Your task to perform on an android device: Do I have any events this weekend? Image 0: 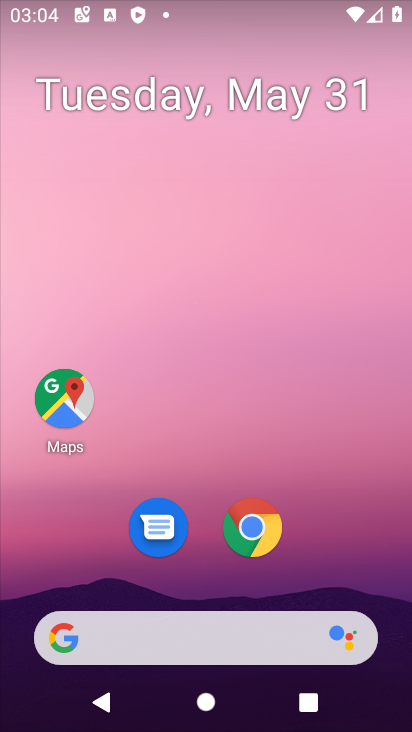
Step 0: drag from (401, 644) to (306, 174)
Your task to perform on an android device: Do I have any events this weekend? Image 1: 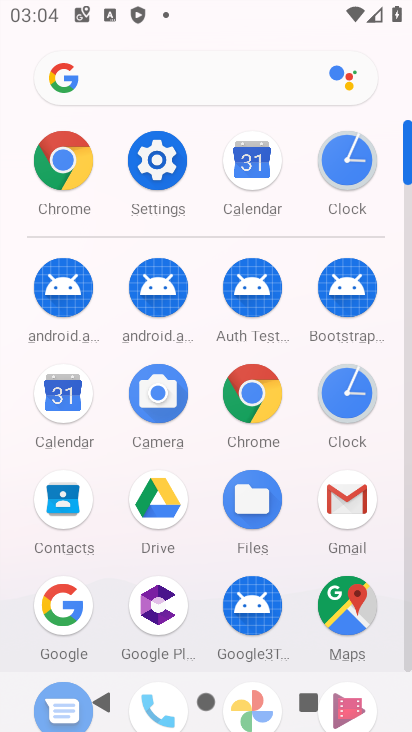
Step 1: click (407, 649)
Your task to perform on an android device: Do I have any events this weekend? Image 2: 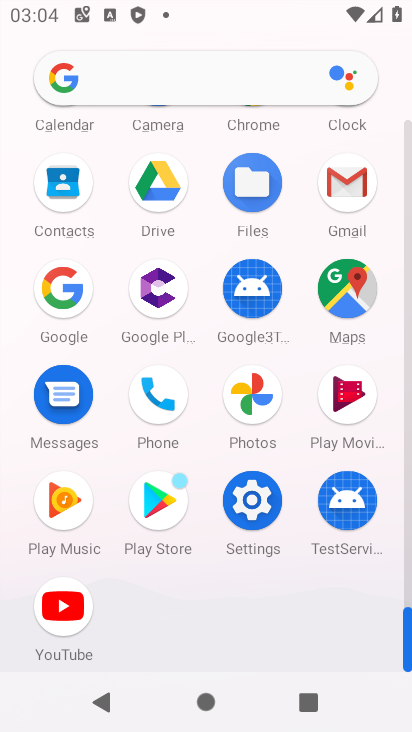
Step 2: click (408, 161)
Your task to perform on an android device: Do I have any events this weekend? Image 3: 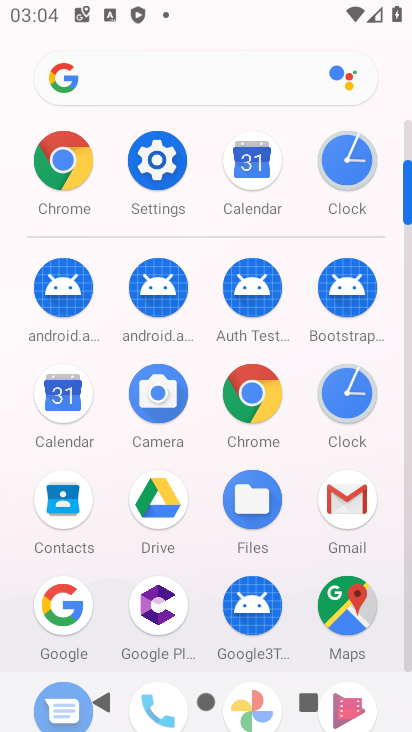
Step 3: click (64, 393)
Your task to perform on an android device: Do I have any events this weekend? Image 4: 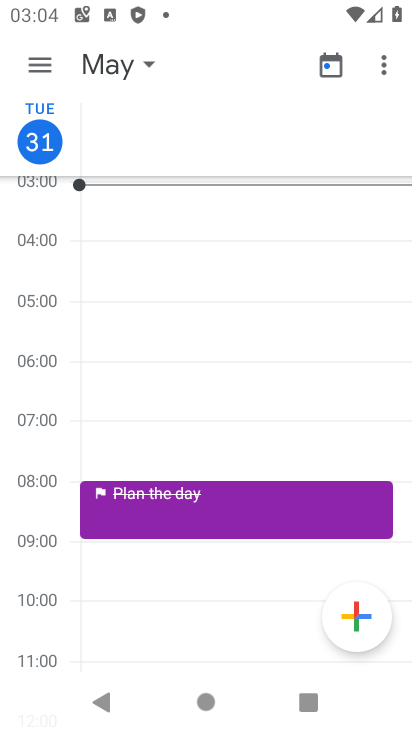
Step 4: click (38, 59)
Your task to perform on an android device: Do I have any events this weekend? Image 5: 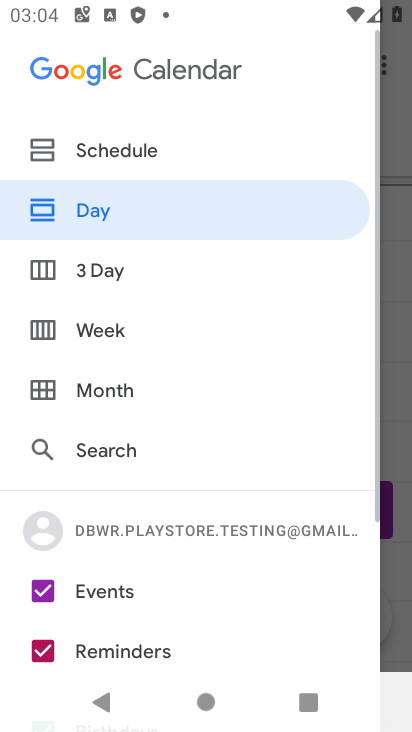
Step 5: click (106, 338)
Your task to perform on an android device: Do I have any events this weekend? Image 6: 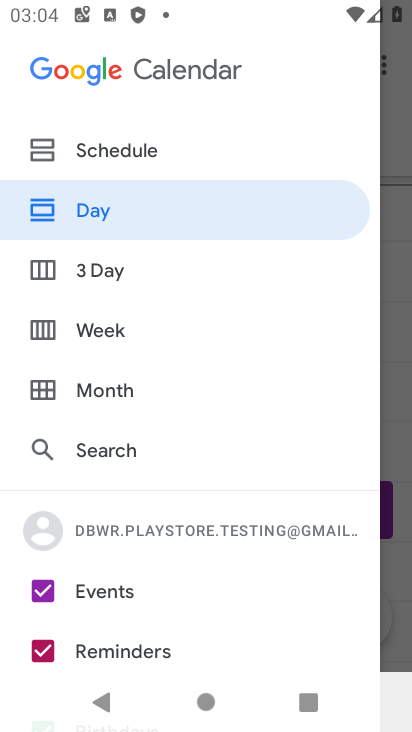
Step 6: click (95, 330)
Your task to perform on an android device: Do I have any events this weekend? Image 7: 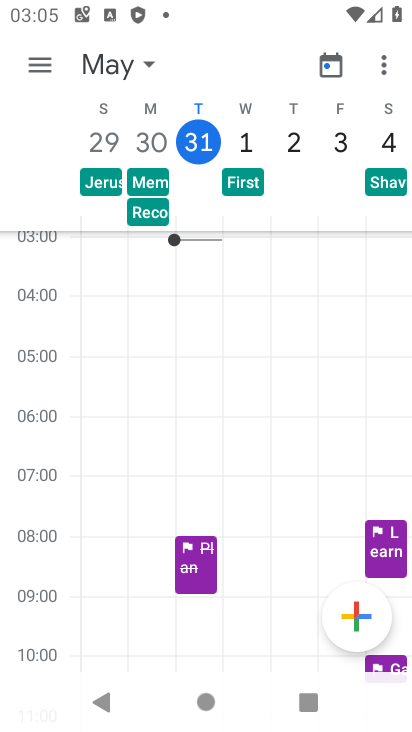
Step 7: task complete